Your task to perform on an android device: Go to battery settings Image 0: 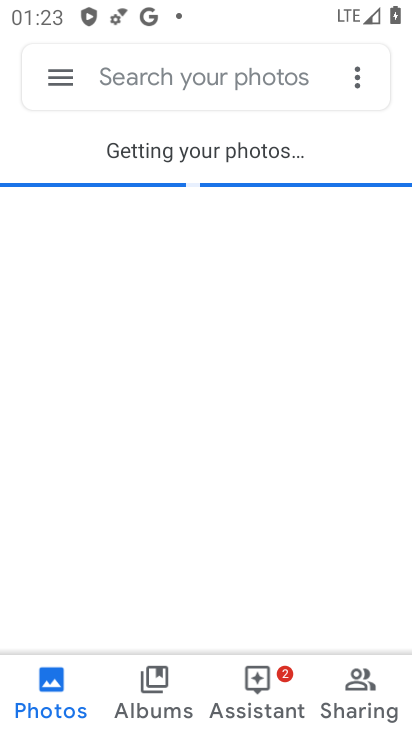
Step 0: press home button
Your task to perform on an android device: Go to battery settings Image 1: 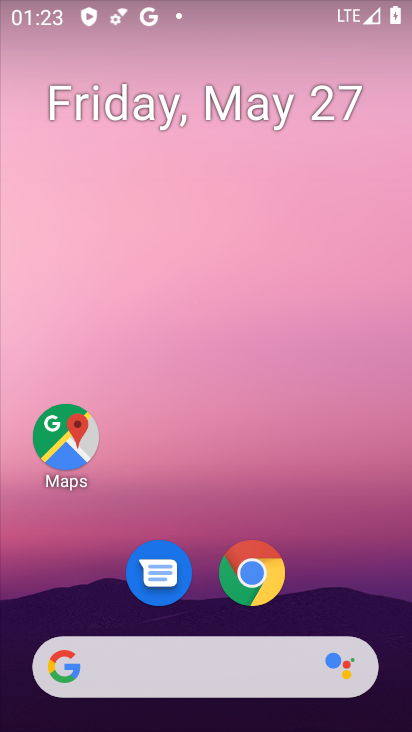
Step 1: drag from (206, 626) to (207, 34)
Your task to perform on an android device: Go to battery settings Image 2: 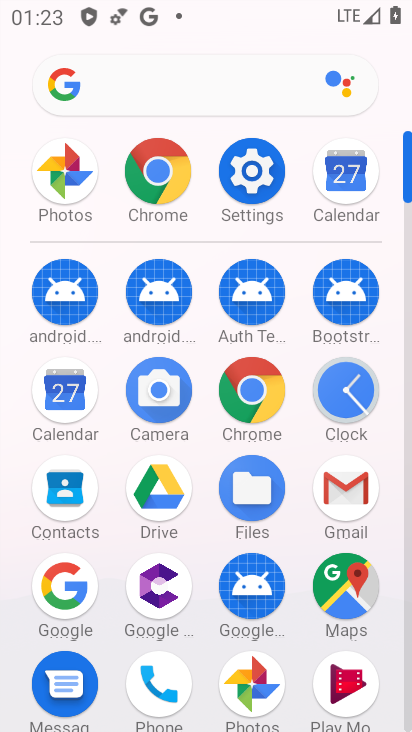
Step 2: click (266, 157)
Your task to perform on an android device: Go to battery settings Image 3: 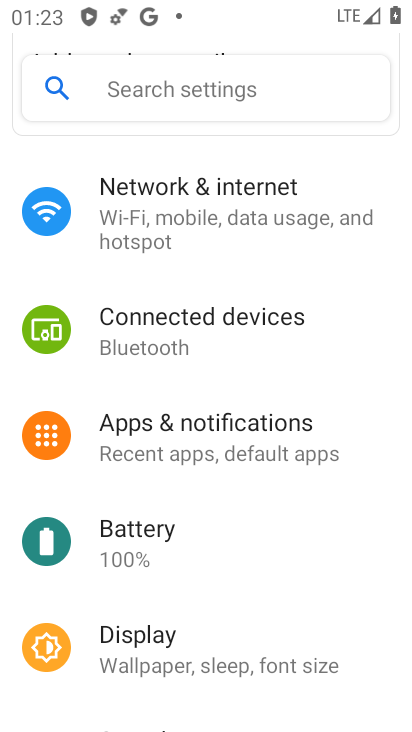
Step 3: click (138, 547)
Your task to perform on an android device: Go to battery settings Image 4: 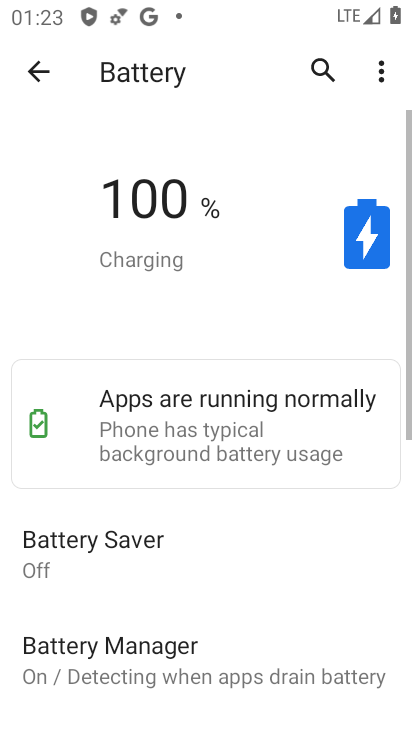
Step 4: task complete